Your task to perform on an android device: Show me popular videos on Youtube Image 0: 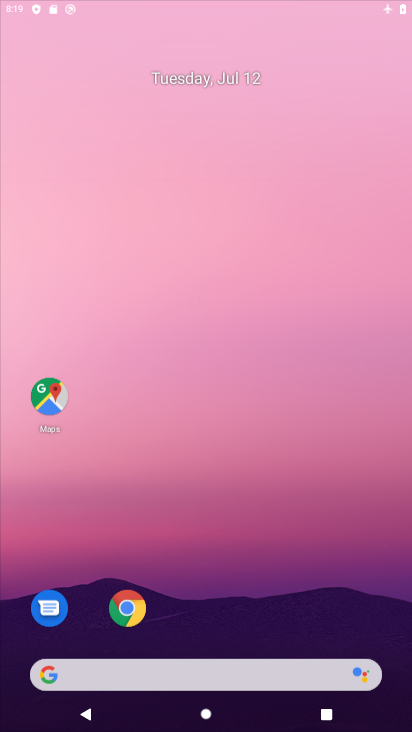
Step 0: click (195, 211)
Your task to perform on an android device: Show me popular videos on Youtube Image 1: 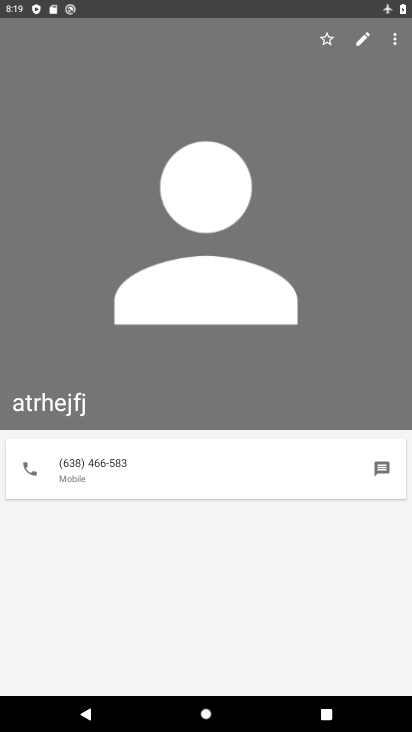
Step 1: press home button
Your task to perform on an android device: Show me popular videos on Youtube Image 2: 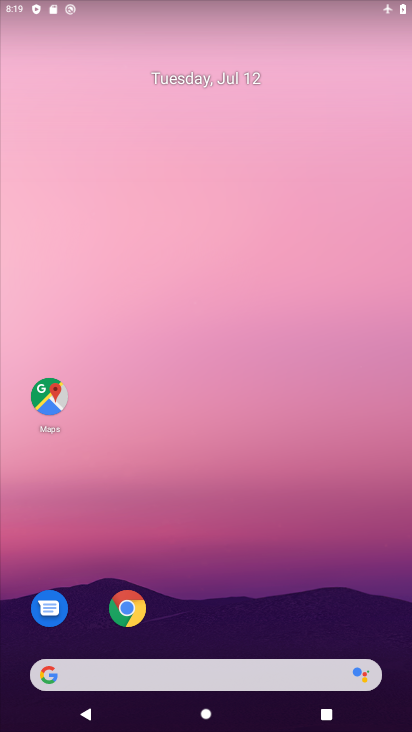
Step 2: drag from (190, 646) to (202, 144)
Your task to perform on an android device: Show me popular videos on Youtube Image 3: 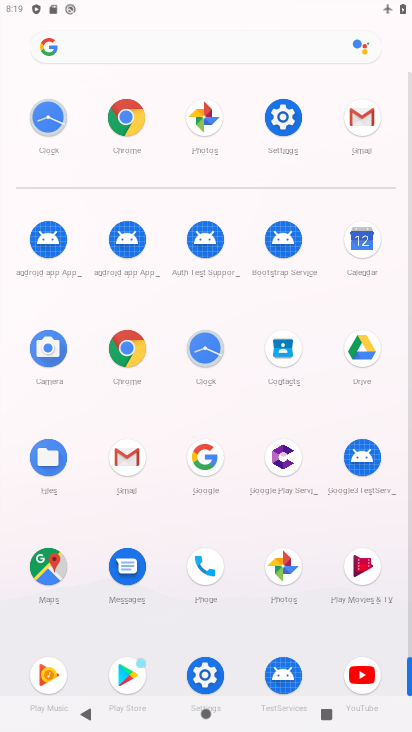
Step 3: click (366, 689)
Your task to perform on an android device: Show me popular videos on Youtube Image 4: 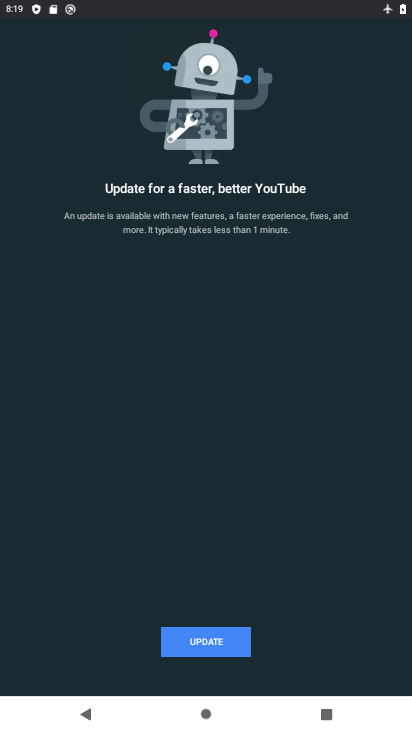
Step 4: click (207, 650)
Your task to perform on an android device: Show me popular videos on Youtube Image 5: 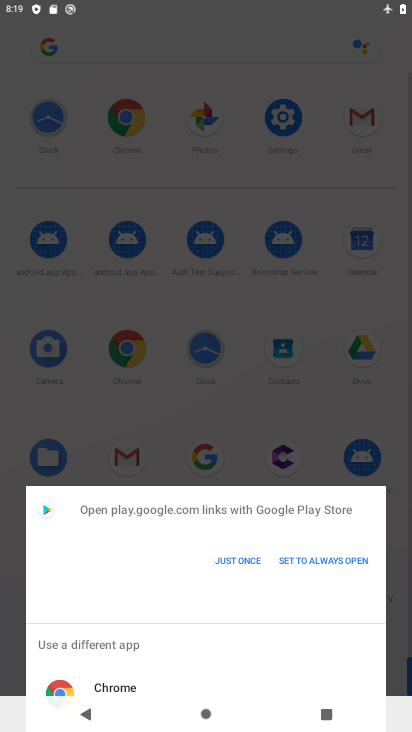
Step 5: click (211, 556)
Your task to perform on an android device: Show me popular videos on Youtube Image 6: 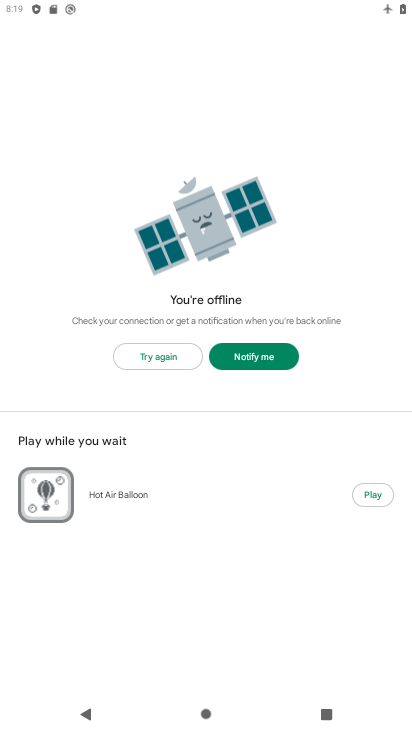
Step 6: task complete